Your task to perform on an android device: open app "Google Chat" Image 0: 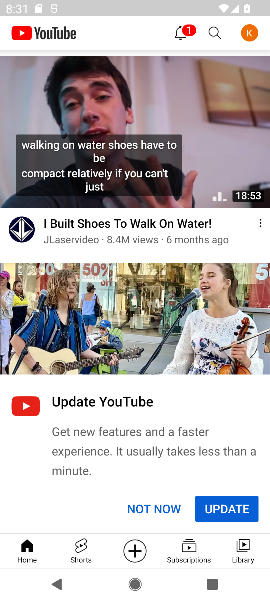
Step 0: press home button
Your task to perform on an android device: open app "Google Chat" Image 1: 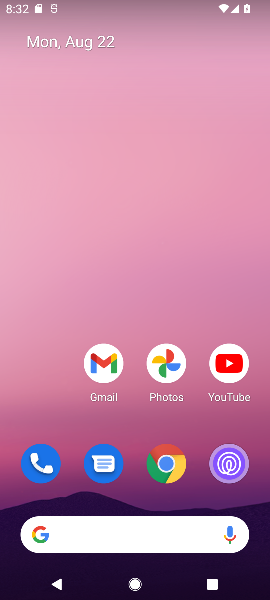
Step 1: drag from (137, 460) to (133, 116)
Your task to perform on an android device: open app "Google Chat" Image 2: 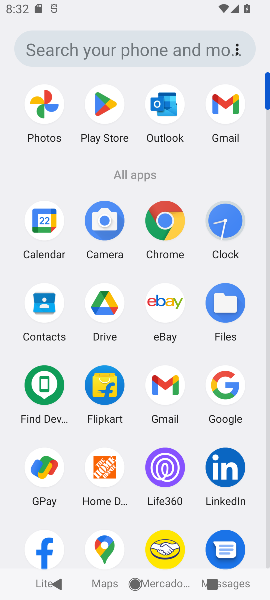
Step 2: click (105, 116)
Your task to perform on an android device: open app "Google Chat" Image 3: 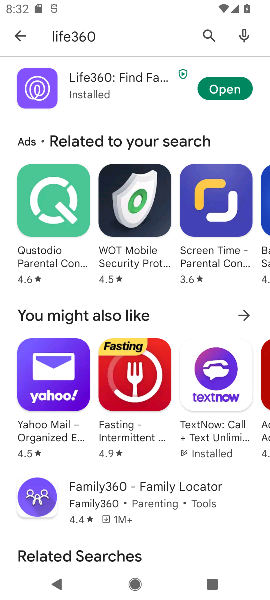
Step 3: click (15, 22)
Your task to perform on an android device: open app "Google Chat" Image 4: 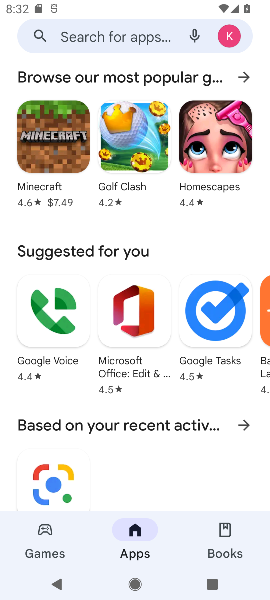
Step 4: click (92, 30)
Your task to perform on an android device: open app "Google Chat" Image 5: 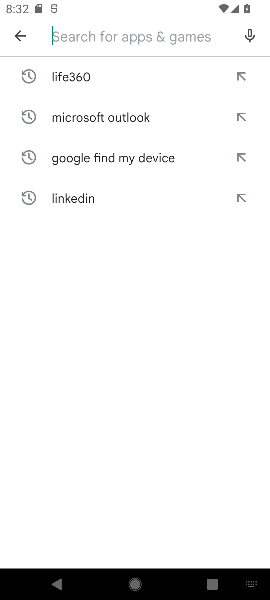
Step 5: type "Google Chat"
Your task to perform on an android device: open app "Google Chat" Image 6: 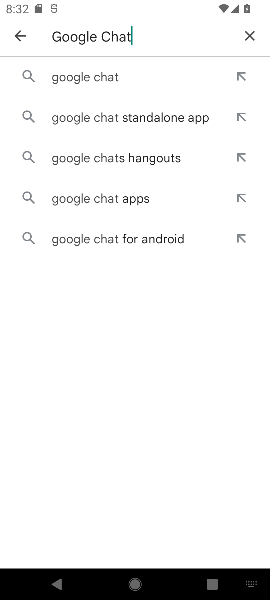
Step 6: click (101, 74)
Your task to perform on an android device: open app "Google Chat" Image 7: 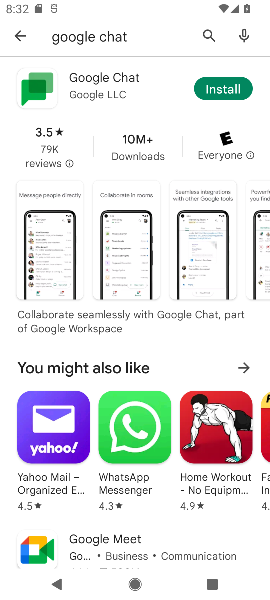
Step 7: click (239, 82)
Your task to perform on an android device: open app "Google Chat" Image 8: 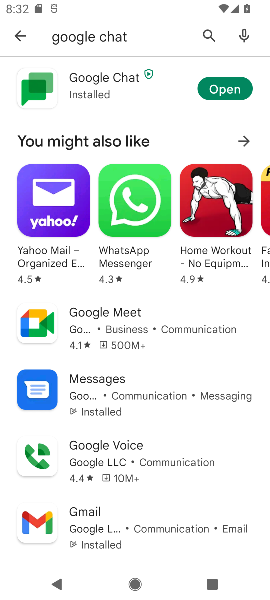
Step 8: click (220, 90)
Your task to perform on an android device: open app "Google Chat" Image 9: 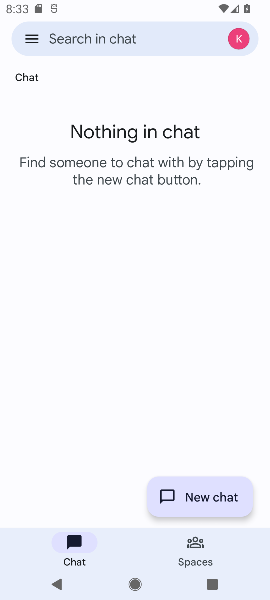
Step 9: task complete